Your task to perform on an android device: Turn off the flashlight Image 0: 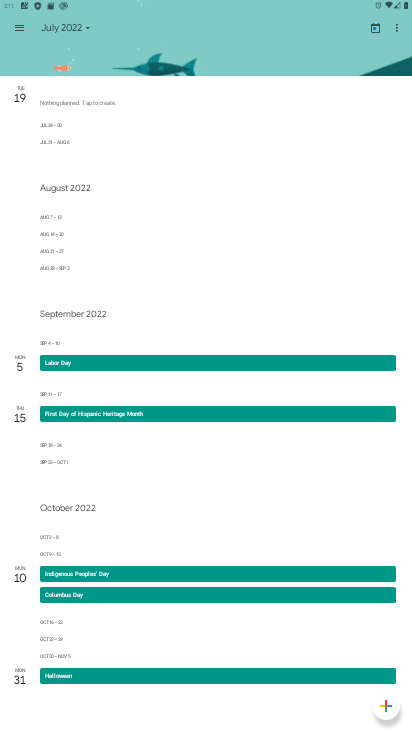
Step 0: press home button
Your task to perform on an android device: Turn off the flashlight Image 1: 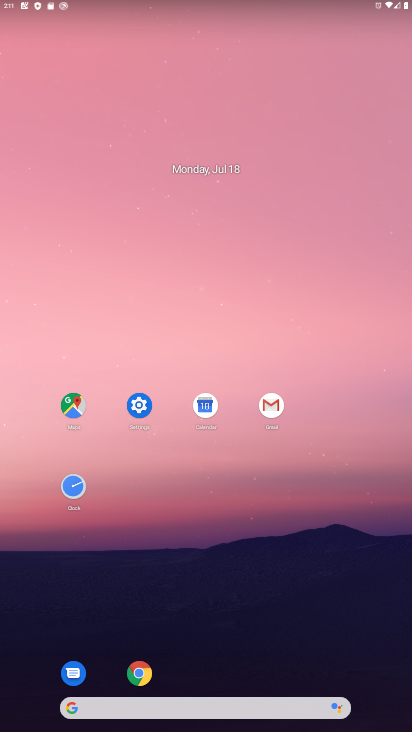
Step 1: drag from (389, 713) to (371, 42)
Your task to perform on an android device: Turn off the flashlight Image 2: 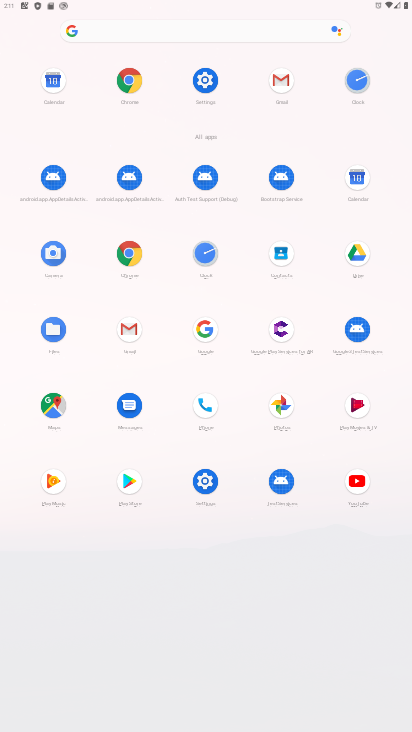
Step 2: click (200, 80)
Your task to perform on an android device: Turn off the flashlight Image 3: 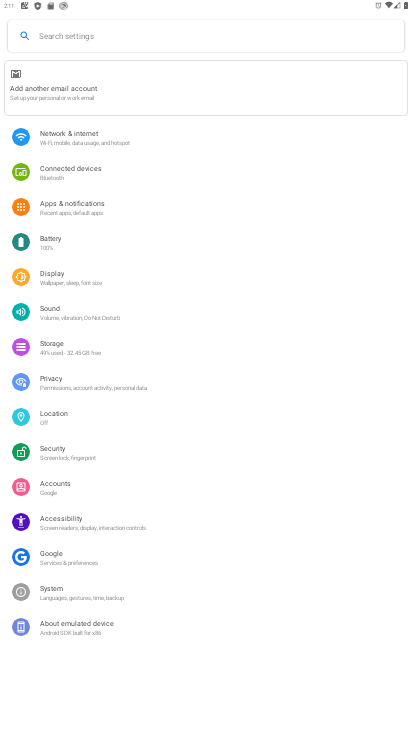
Step 3: click (49, 275)
Your task to perform on an android device: Turn off the flashlight Image 4: 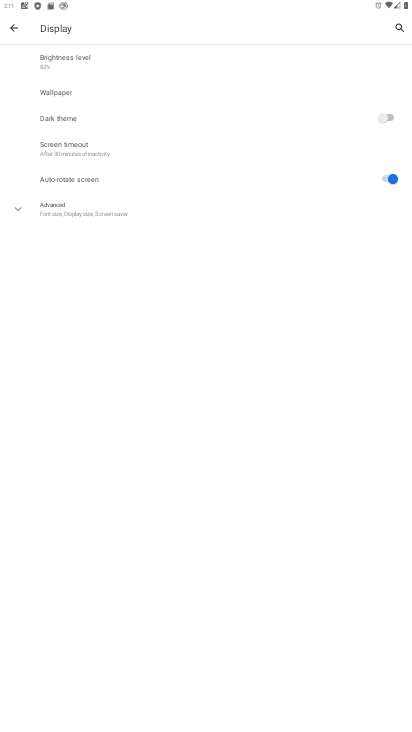
Step 4: click (15, 201)
Your task to perform on an android device: Turn off the flashlight Image 5: 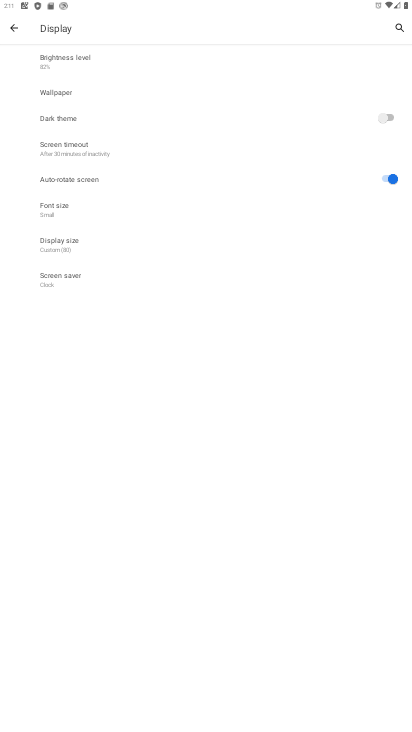
Step 5: task complete